Your task to perform on an android device: turn off priority inbox in the gmail app Image 0: 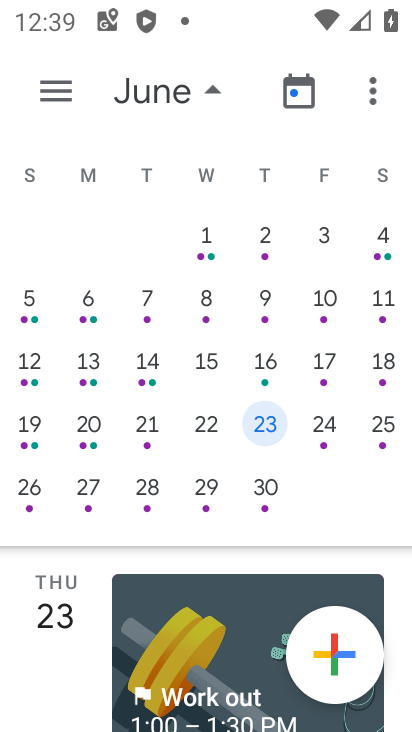
Step 0: press home button
Your task to perform on an android device: turn off priority inbox in the gmail app Image 1: 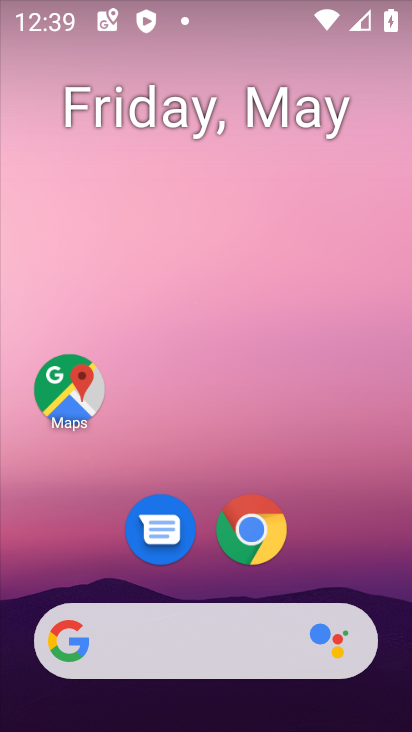
Step 1: drag from (365, 548) to (299, 192)
Your task to perform on an android device: turn off priority inbox in the gmail app Image 2: 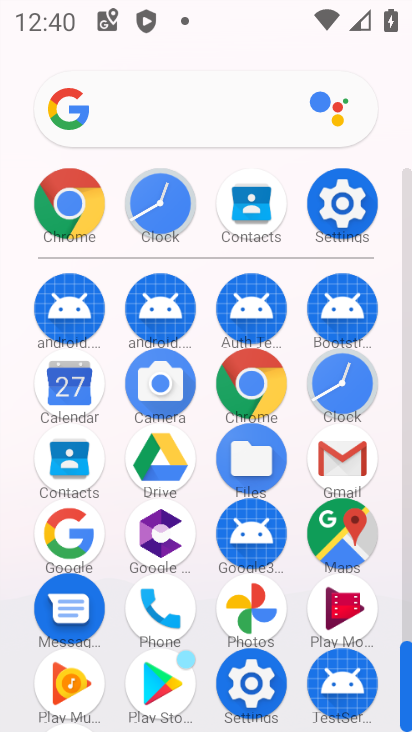
Step 2: click (329, 459)
Your task to perform on an android device: turn off priority inbox in the gmail app Image 3: 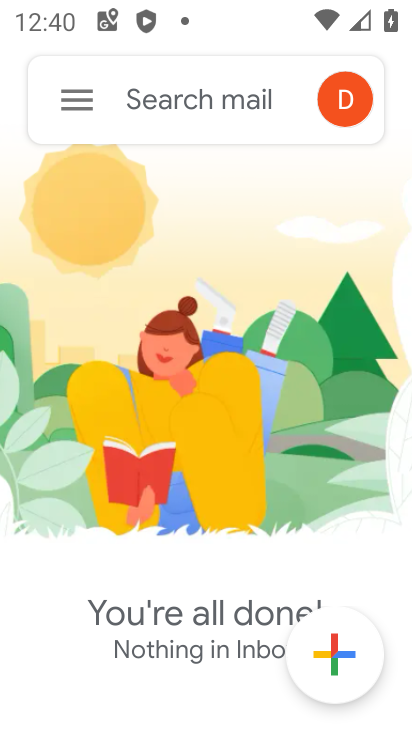
Step 3: click (66, 105)
Your task to perform on an android device: turn off priority inbox in the gmail app Image 4: 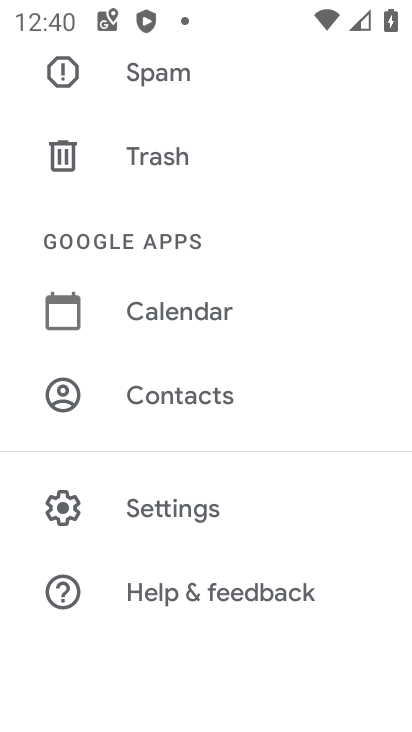
Step 4: click (173, 510)
Your task to perform on an android device: turn off priority inbox in the gmail app Image 5: 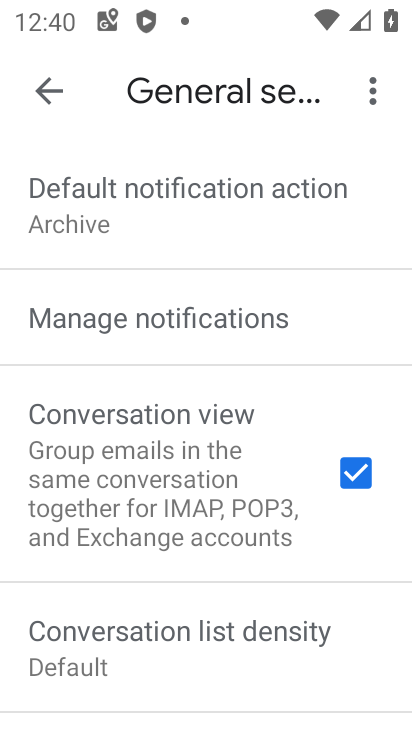
Step 5: task complete